Your task to perform on an android device: Show me productivity apps on the Play Store Image 0: 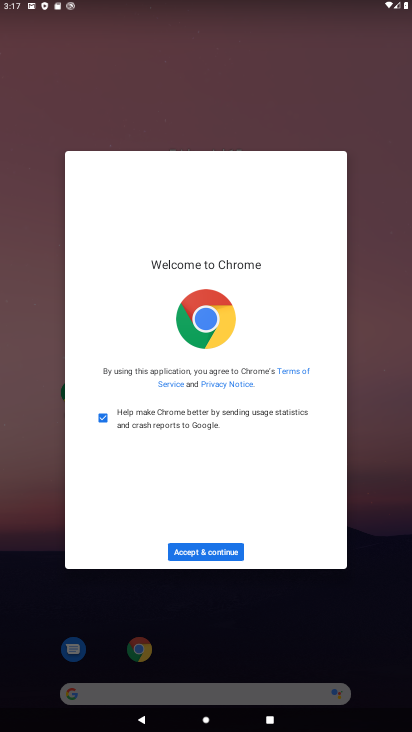
Step 0: press home button
Your task to perform on an android device: Show me productivity apps on the Play Store Image 1: 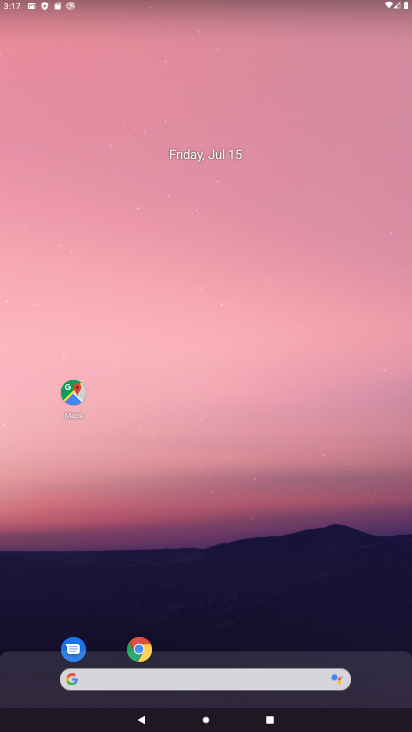
Step 1: drag from (383, 665) to (356, 68)
Your task to perform on an android device: Show me productivity apps on the Play Store Image 2: 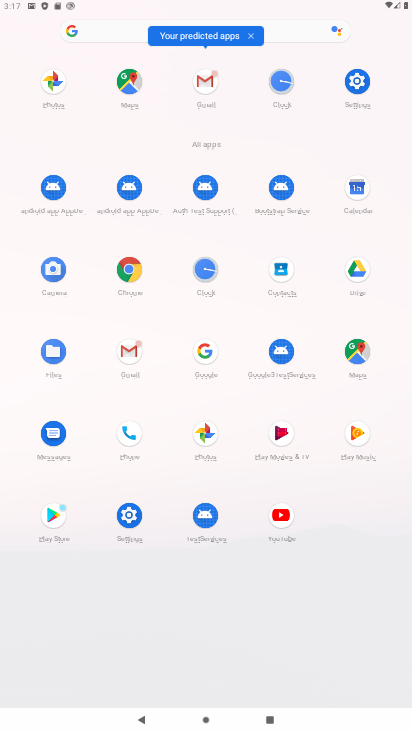
Step 2: click (54, 512)
Your task to perform on an android device: Show me productivity apps on the Play Store Image 3: 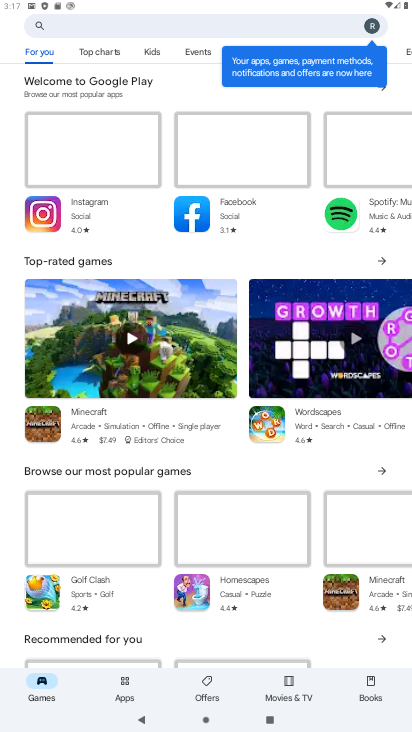
Step 3: click (119, 687)
Your task to perform on an android device: Show me productivity apps on the Play Store Image 4: 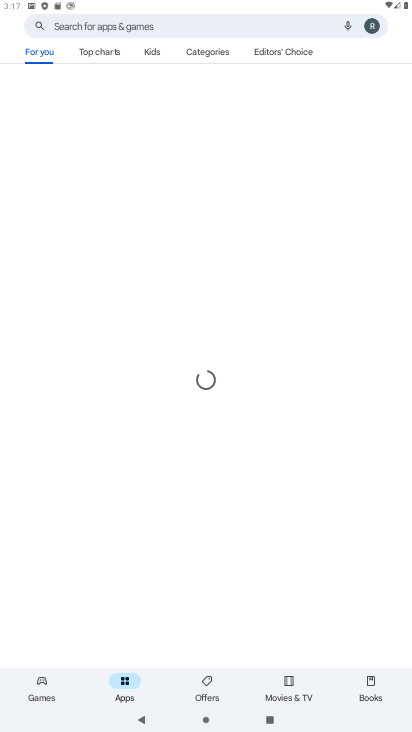
Step 4: click (208, 52)
Your task to perform on an android device: Show me productivity apps on the Play Store Image 5: 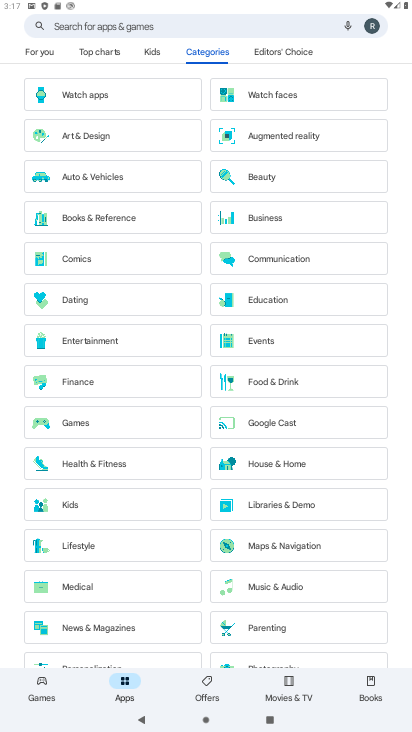
Step 5: drag from (205, 607) to (208, 302)
Your task to perform on an android device: Show me productivity apps on the Play Store Image 6: 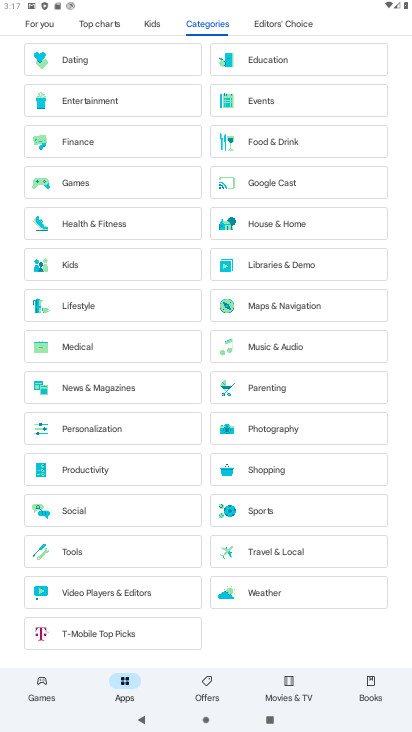
Step 6: click (83, 473)
Your task to perform on an android device: Show me productivity apps on the Play Store Image 7: 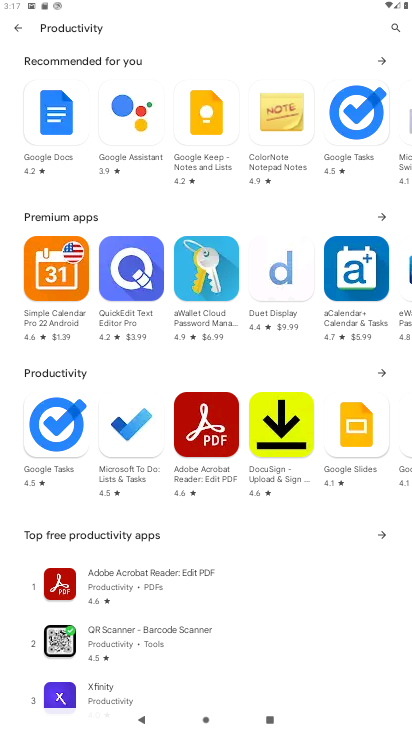
Step 7: click (381, 369)
Your task to perform on an android device: Show me productivity apps on the Play Store Image 8: 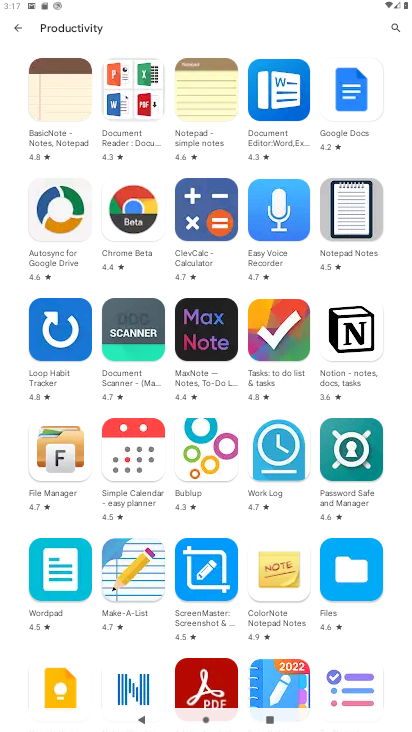
Step 8: task complete